Your task to perform on an android device: Open Google Chrome and click the shortcut for Amazon.com Image 0: 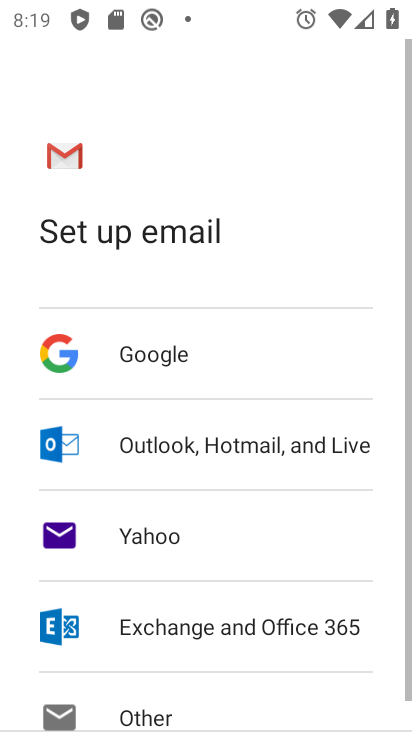
Step 0: press home button
Your task to perform on an android device: Open Google Chrome and click the shortcut for Amazon.com Image 1: 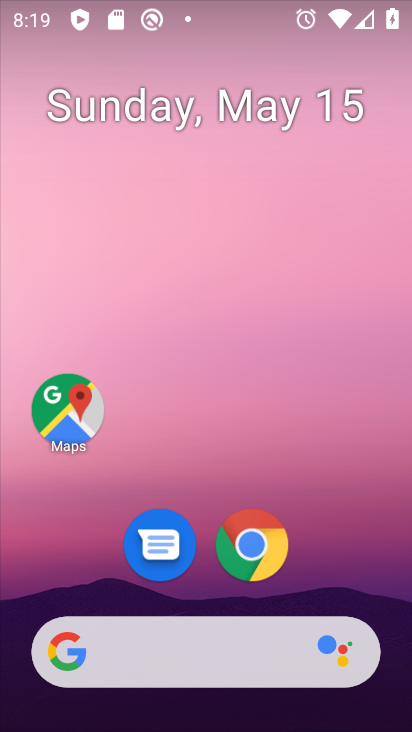
Step 1: drag from (364, 553) to (355, 67)
Your task to perform on an android device: Open Google Chrome and click the shortcut for Amazon.com Image 2: 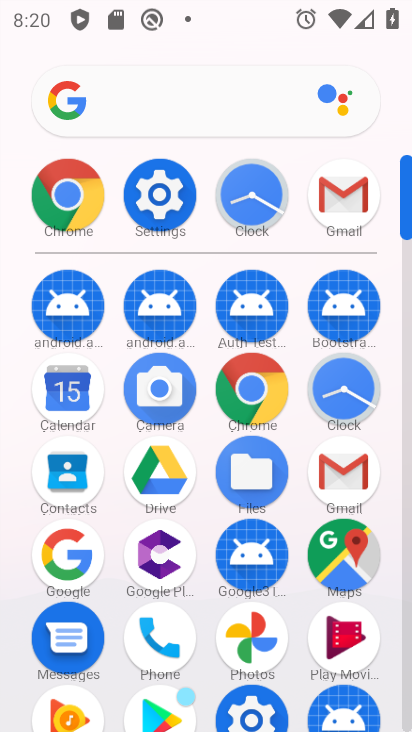
Step 2: click (249, 403)
Your task to perform on an android device: Open Google Chrome and click the shortcut for Amazon.com Image 3: 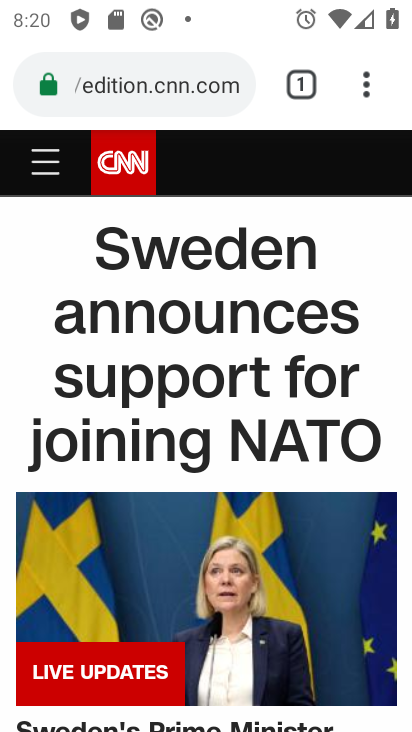
Step 3: press back button
Your task to perform on an android device: Open Google Chrome and click the shortcut for Amazon.com Image 4: 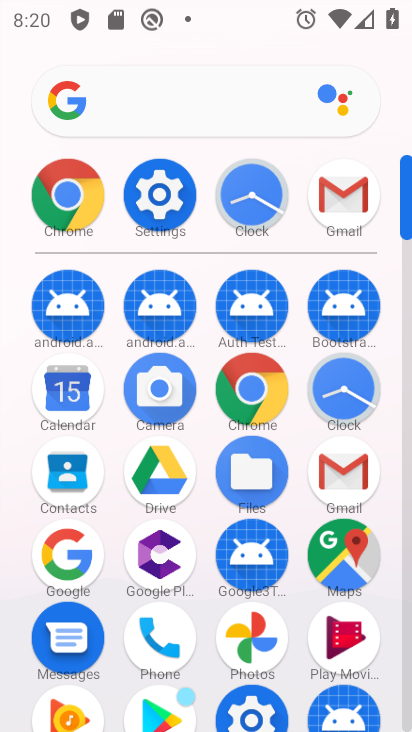
Step 4: click (252, 391)
Your task to perform on an android device: Open Google Chrome and click the shortcut for Amazon.com Image 5: 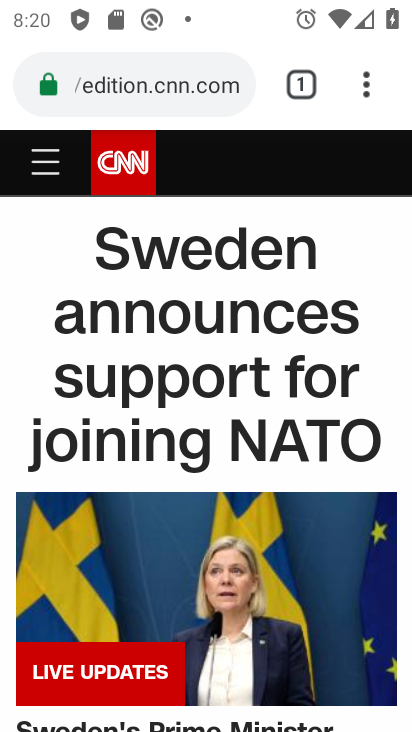
Step 5: click (183, 75)
Your task to perform on an android device: Open Google Chrome and click the shortcut for Amazon.com Image 6: 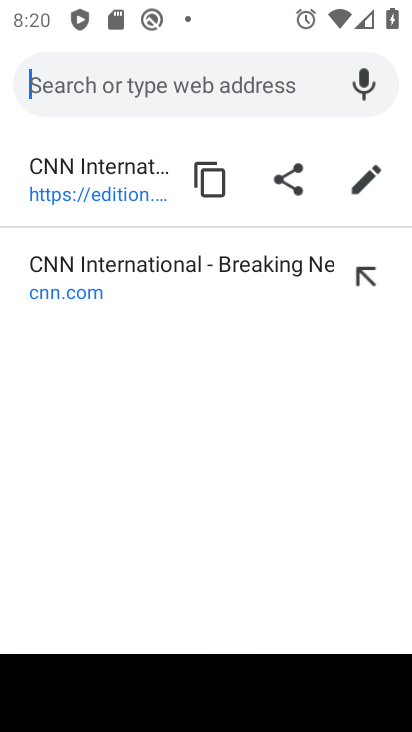
Step 6: type "amazon.com"
Your task to perform on an android device: Open Google Chrome and click the shortcut for Amazon.com Image 7: 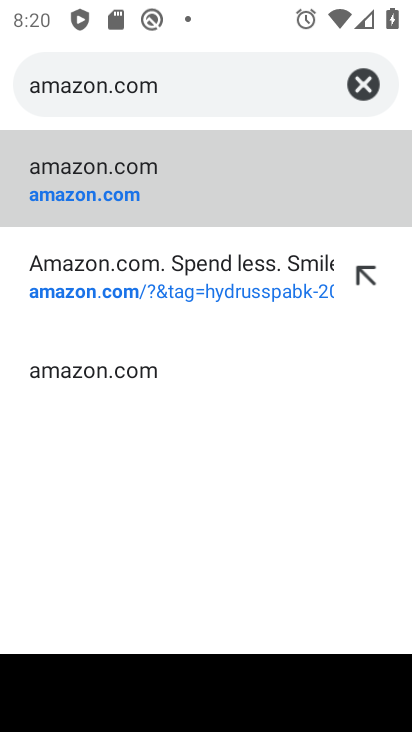
Step 7: click (104, 193)
Your task to perform on an android device: Open Google Chrome and click the shortcut for Amazon.com Image 8: 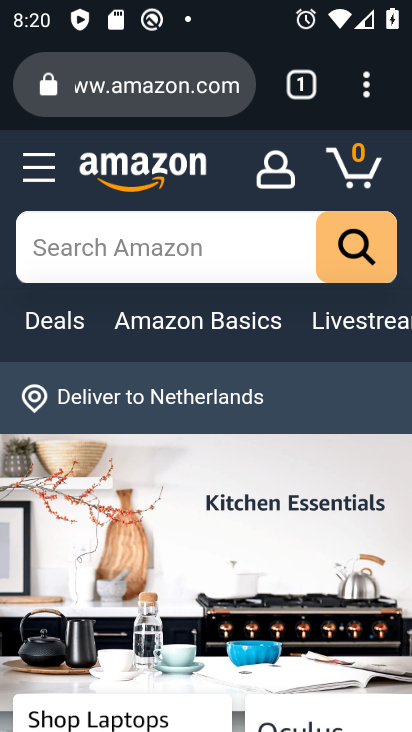
Step 8: task complete